Your task to perform on an android device: Open settings Image 0: 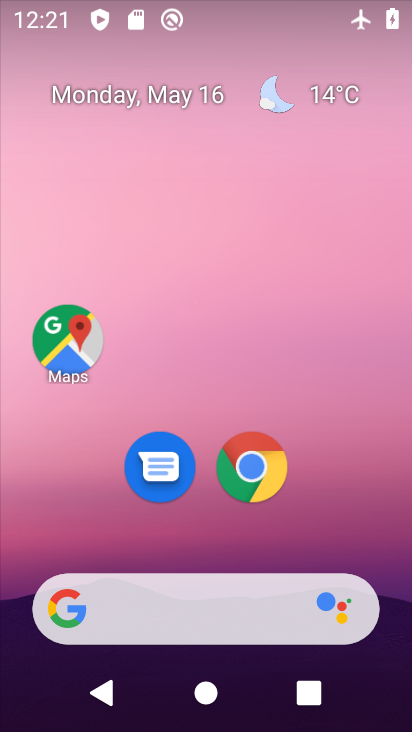
Step 0: drag from (342, 524) to (337, 173)
Your task to perform on an android device: Open settings Image 1: 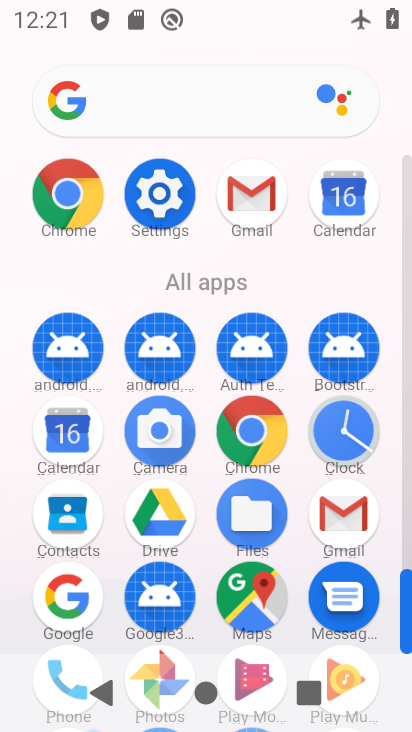
Step 1: click (142, 183)
Your task to perform on an android device: Open settings Image 2: 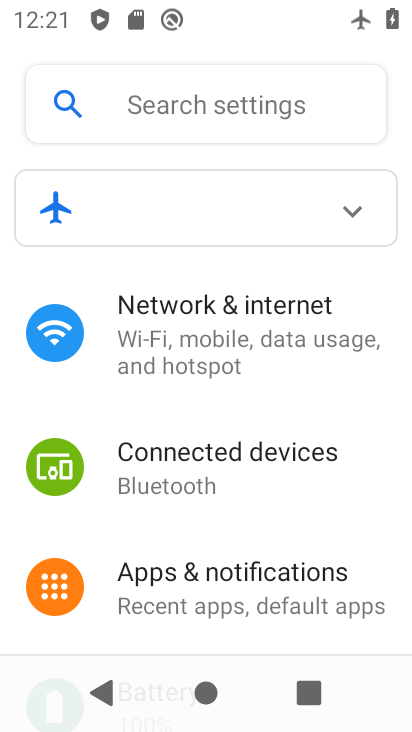
Step 2: task complete